Your task to perform on an android device: When is my next appointment? Image 0: 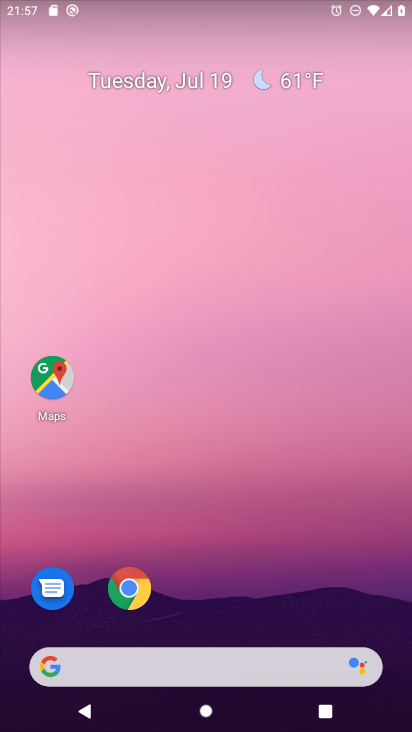
Step 0: press home button
Your task to perform on an android device: When is my next appointment? Image 1: 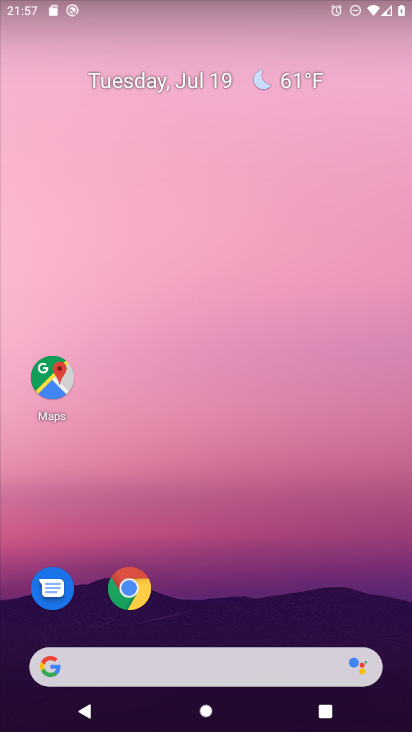
Step 1: drag from (216, 627) to (214, 40)
Your task to perform on an android device: When is my next appointment? Image 2: 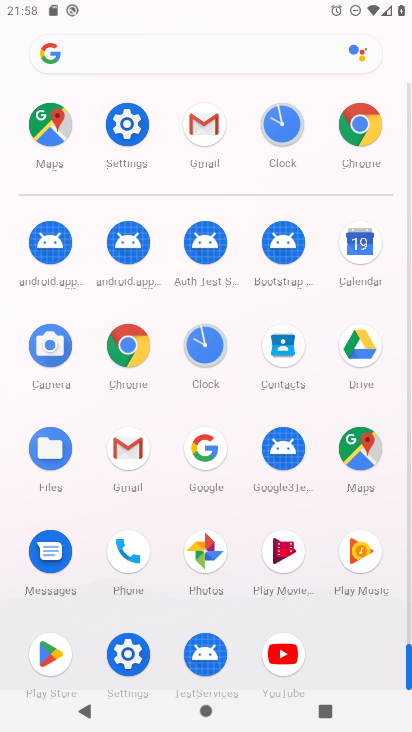
Step 2: click (357, 232)
Your task to perform on an android device: When is my next appointment? Image 3: 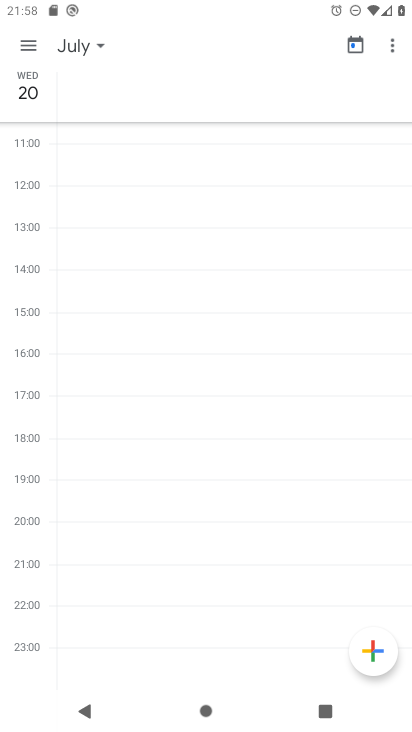
Step 3: click (35, 93)
Your task to perform on an android device: When is my next appointment? Image 4: 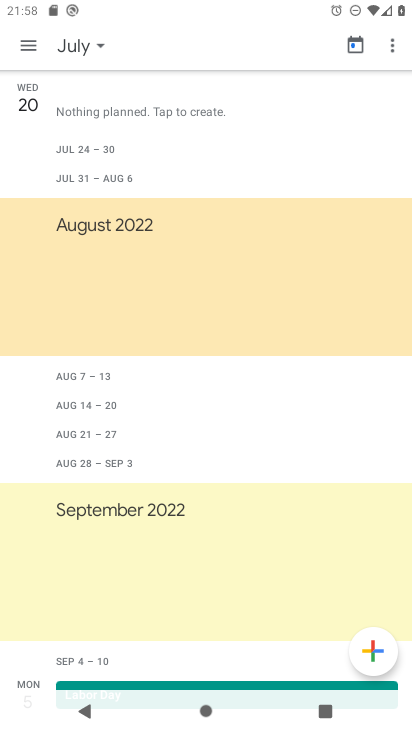
Step 4: task complete